Your task to perform on an android device: turn off picture-in-picture Image 0: 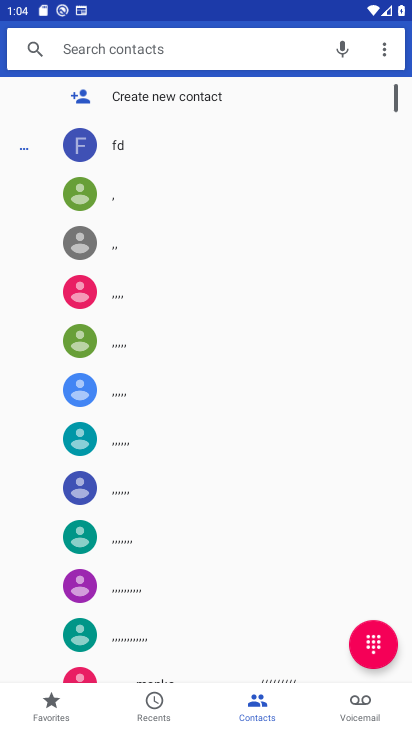
Step 0: press home button
Your task to perform on an android device: turn off picture-in-picture Image 1: 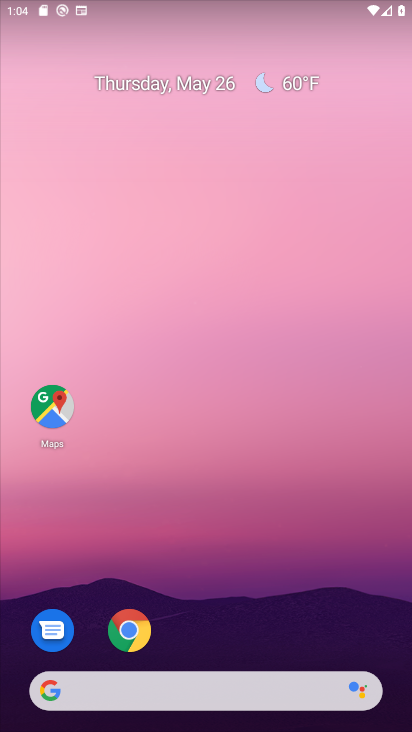
Step 1: click (142, 623)
Your task to perform on an android device: turn off picture-in-picture Image 2: 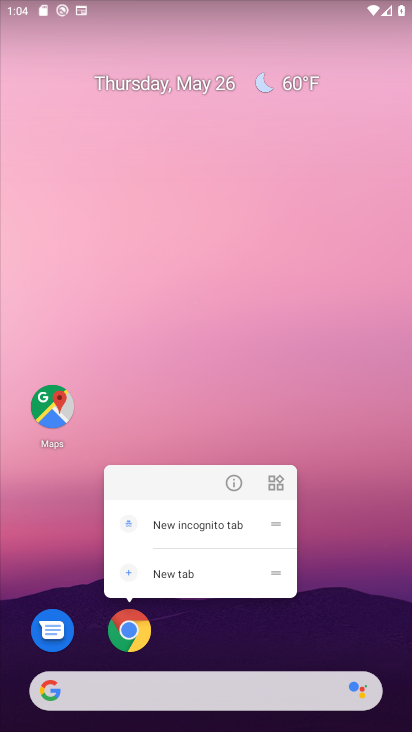
Step 2: click (228, 480)
Your task to perform on an android device: turn off picture-in-picture Image 3: 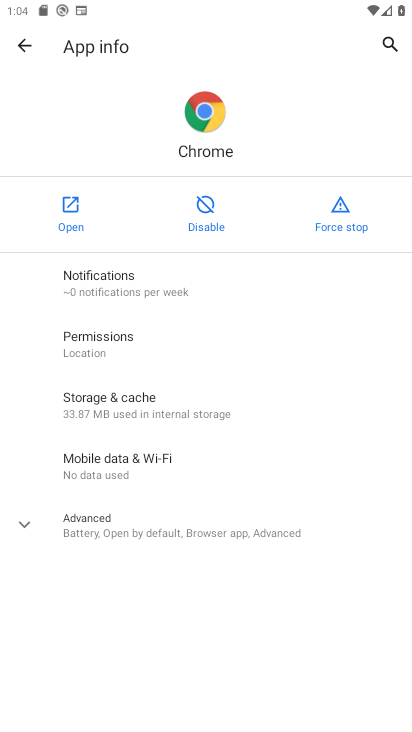
Step 3: click (109, 531)
Your task to perform on an android device: turn off picture-in-picture Image 4: 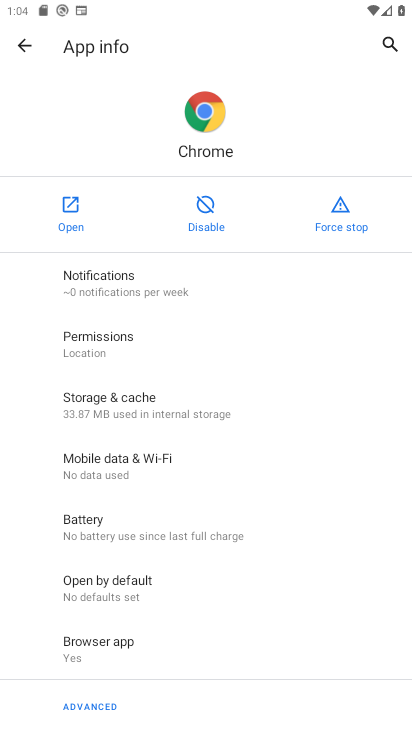
Step 4: drag from (169, 658) to (168, 339)
Your task to perform on an android device: turn off picture-in-picture Image 5: 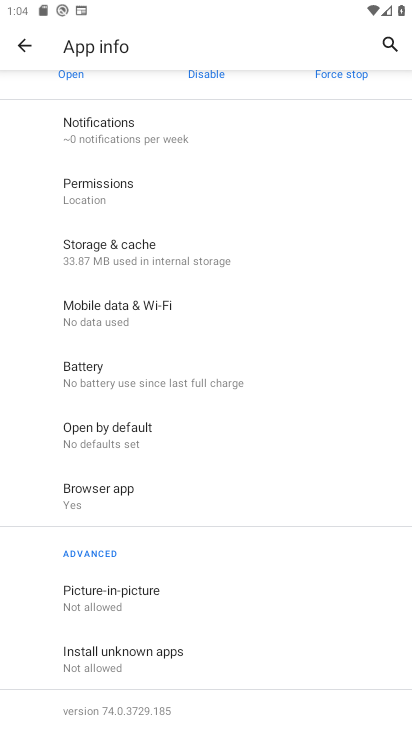
Step 5: click (101, 599)
Your task to perform on an android device: turn off picture-in-picture Image 6: 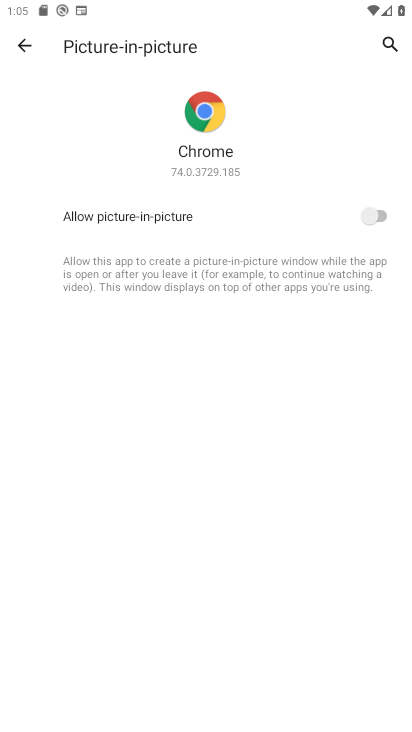
Step 6: task complete